Your task to perform on an android device: Go to privacy settings Image 0: 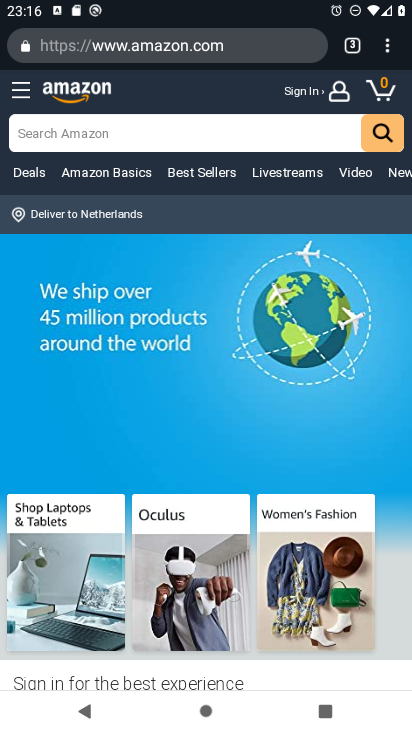
Step 0: press home button
Your task to perform on an android device: Go to privacy settings Image 1: 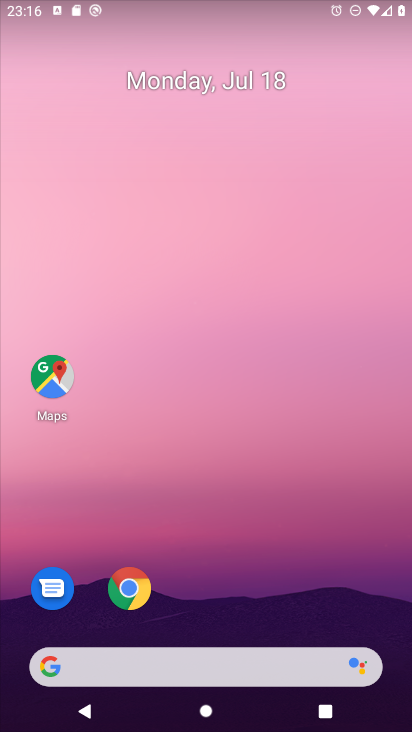
Step 1: drag from (393, 635) to (351, 37)
Your task to perform on an android device: Go to privacy settings Image 2: 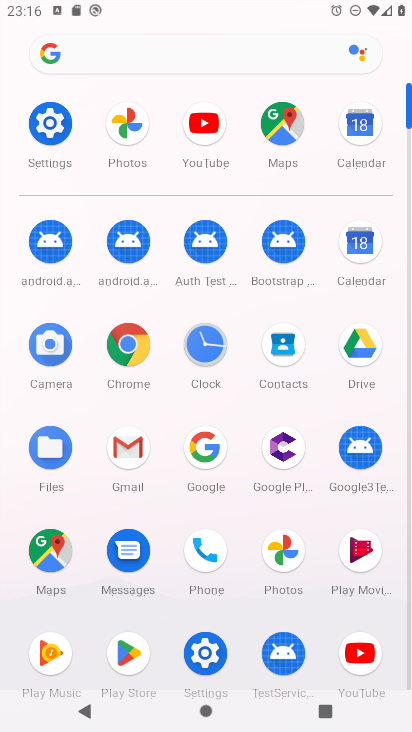
Step 2: click (202, 654)
Your task to perform on an android device: Go to privacy settings Image 3: 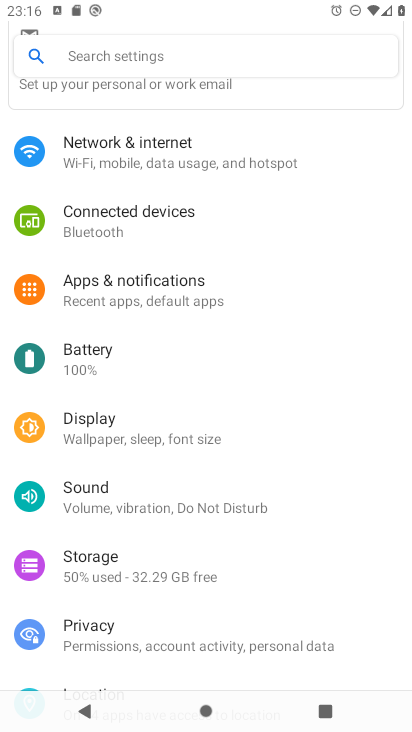
Step 3: drag from (148, 611) to (189, 276)
Your task to perform on an android device: Go to privacy settings Image 4: 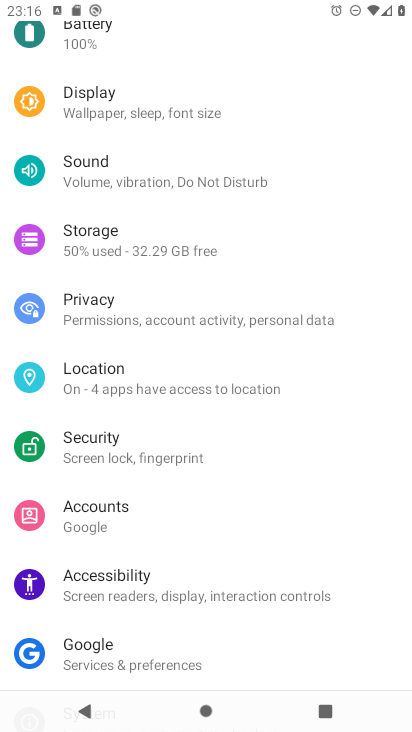
Step 4: click (89, 305)
Your task to perform on an android device: Go to privacy settings Image 5: 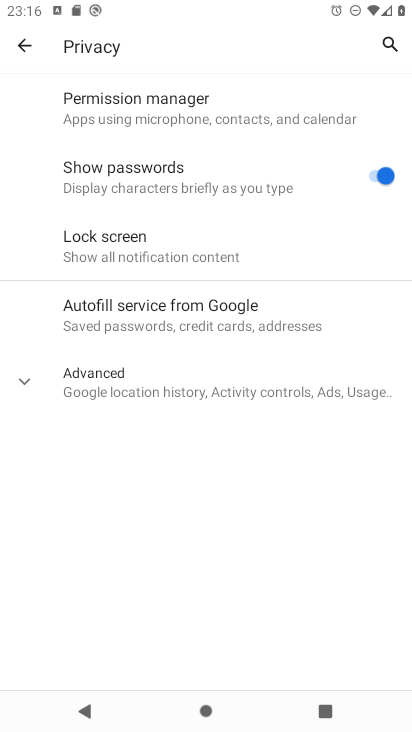
Step 5: click (22, 383)
Your task to perform on an android device: Go to privacy settings Image 6: 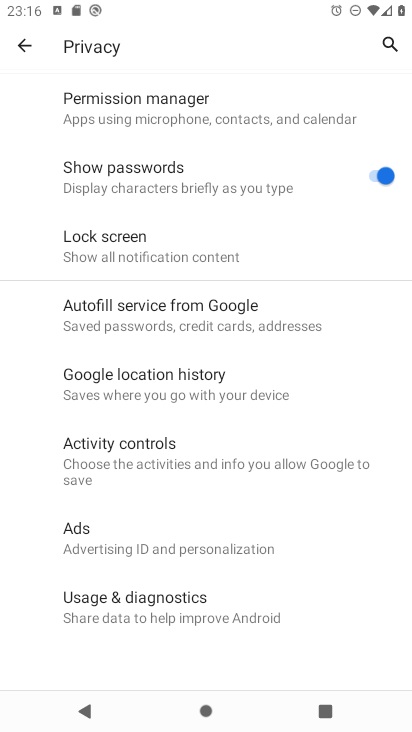
Step 6: task complete